Your task to perform on an android device: turn off picture-in-picture Image 0: 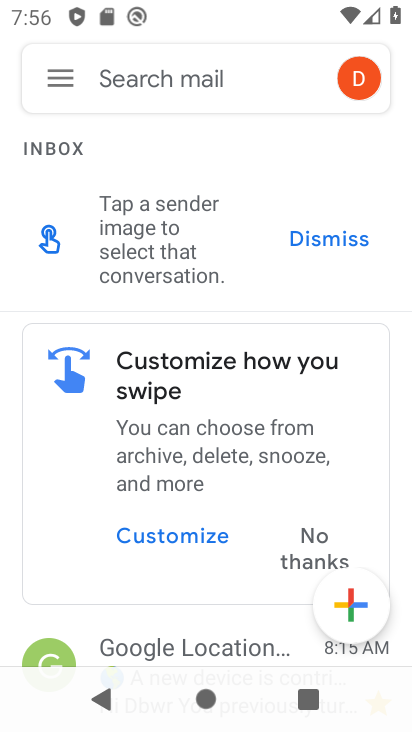
Step 0: press home button
Your task to perform on an android device: turn off picture-in-picture Image 1: 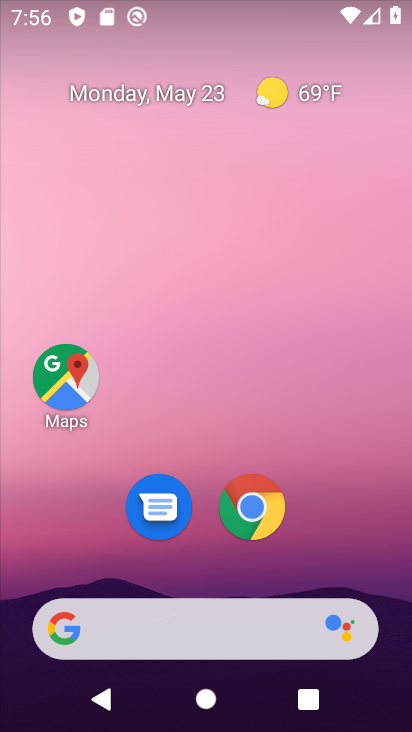
Step 1: click (246, 519)
Your task to perform on an android device: turn off picture-in-picture Image 2: 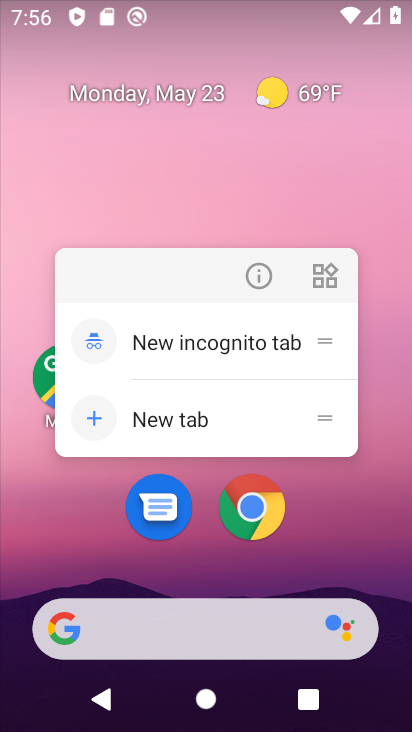
Step 2: click (257, 276)
Your task to perform on an android device: turn off picture-in-picture Image 3: 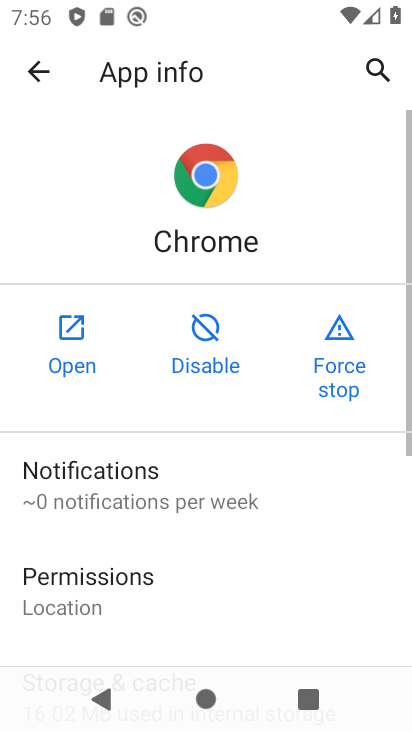
Step 3: drag from (155, 553) to (202, 216)
Your task to perform on an android device: turn off picture-in-picture Image 4: 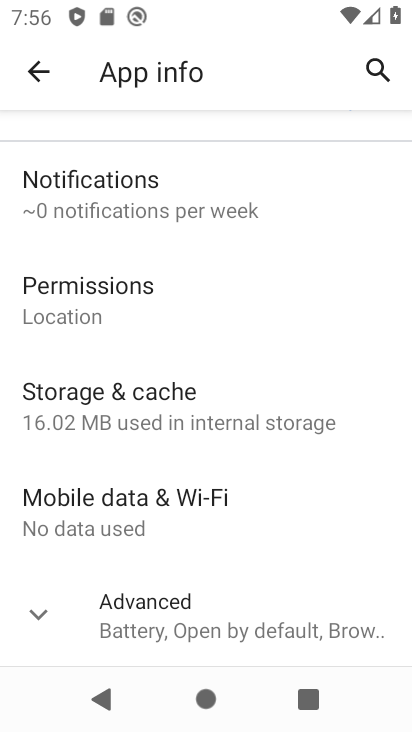
Step 4: drag from (167, 518) to (184, 167)
Your task to perform on an android device: turn off picture-in-picture Image 5: 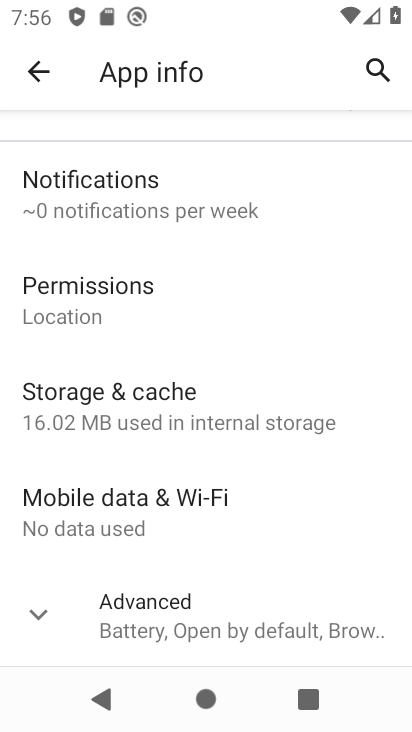
Step 5: click (36, 626)
Your task to perform on an android device: turn off picture-in-picture Image 6: 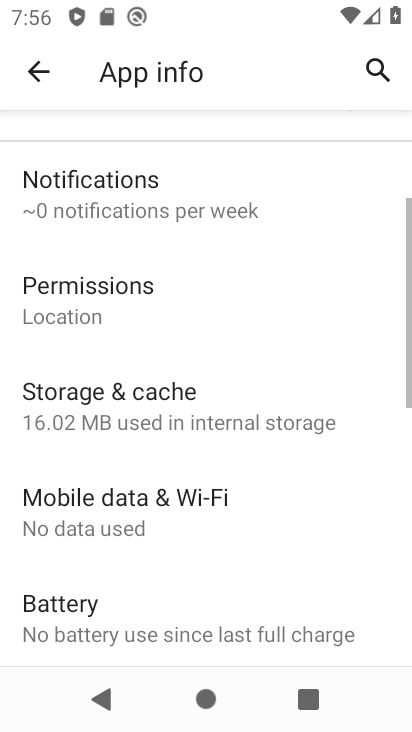
Step 6: drag from (159, 597) to (200, 151)
Your task to perform on an android device: turn off picture-in-picture Image 7: 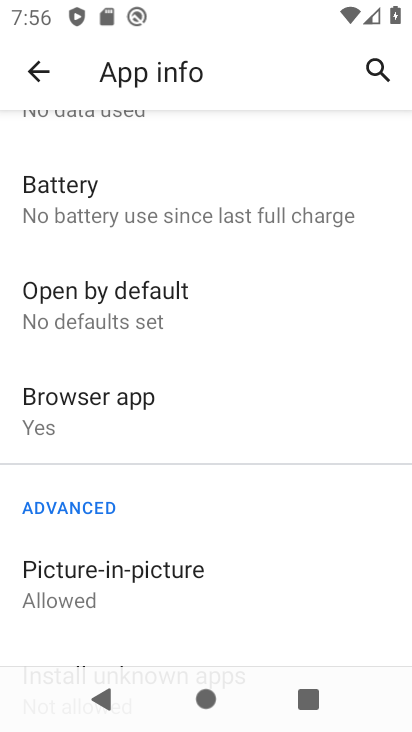
Step 7: click (98, 575)
Your task to perform on an android device: turn off picture-in-picture Image 8: 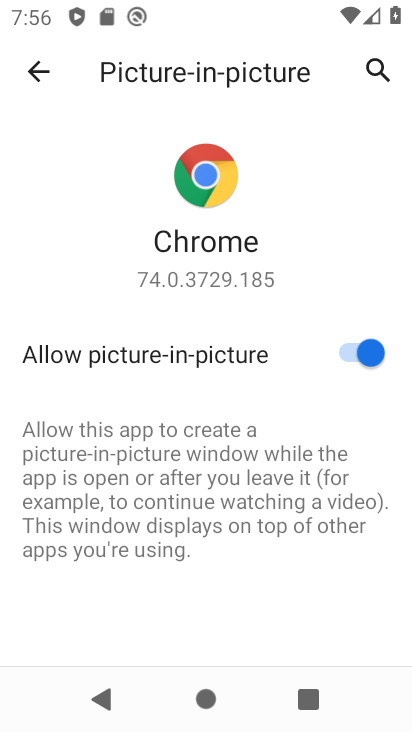
Step 8: click (355, 365)
Your task to perform on an android device: turn off picture-in-picture Image 9: 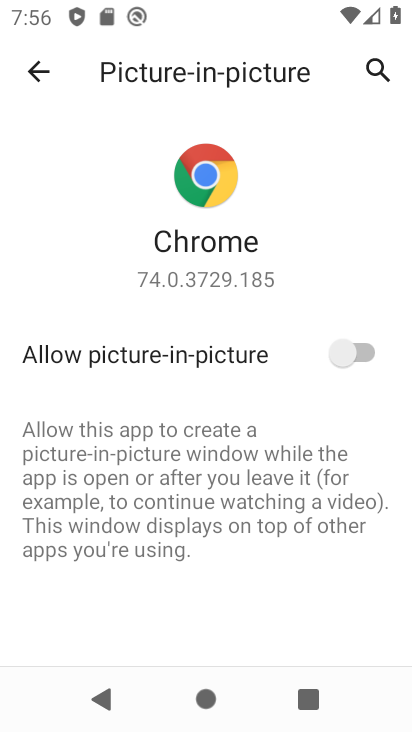
Step 9: task complete